Your task to perform on an android device: Open internet settings Image 0: 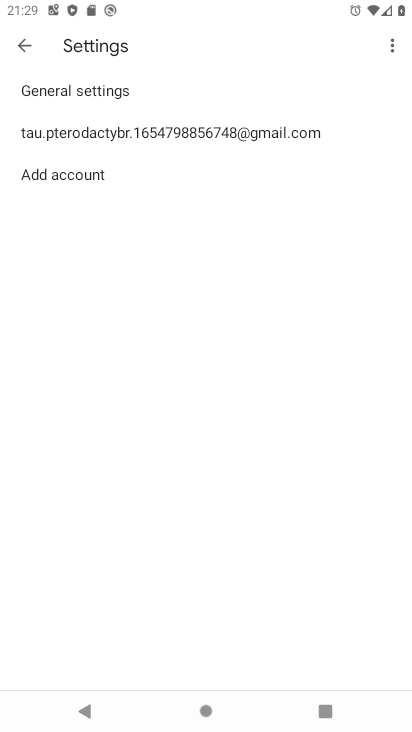
Step 0: press home button
Your task to perform on an android device: Open internet settings Image 1: 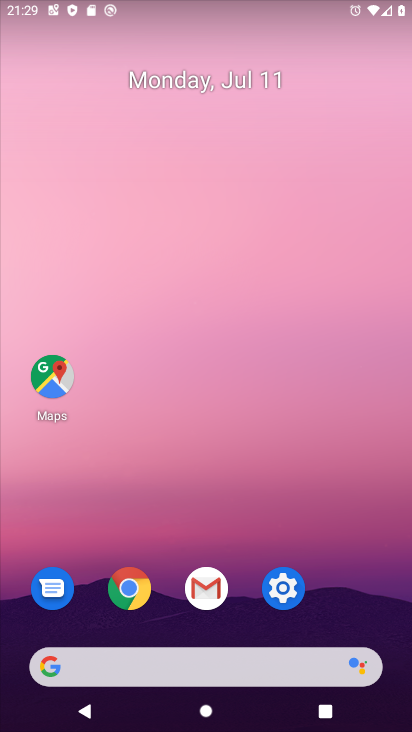
Step 1: drag from (245, 674) to (373, 227)
Your task to perform on an android device: Open internet settings Image 2: 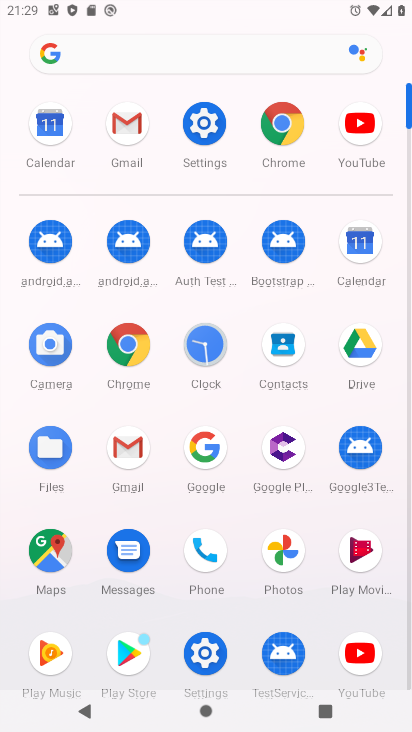
Step 2: click (204, 641)
Your task to perform on an android device: Open internet settings Image 3: 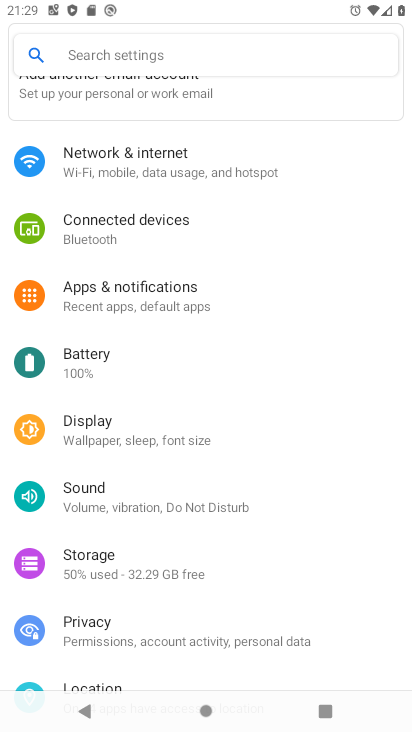
Step 3: click (151, 176)
Your task to perform on an android device: Open internet settings Image 4: 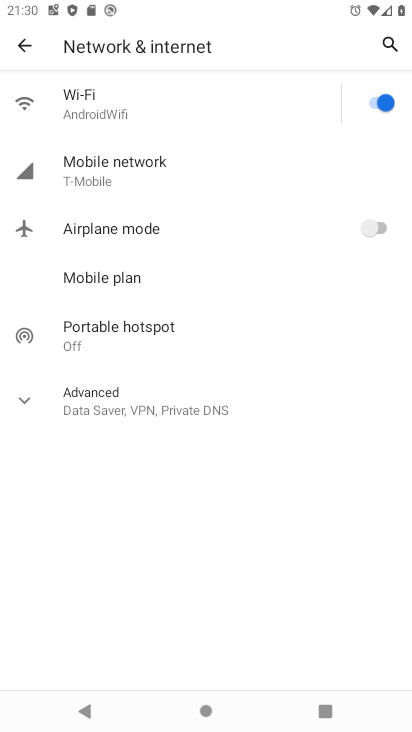
Step 4: task complete